Your task to perform on an android device: turn off priority inbox in the gmail app Image 0: 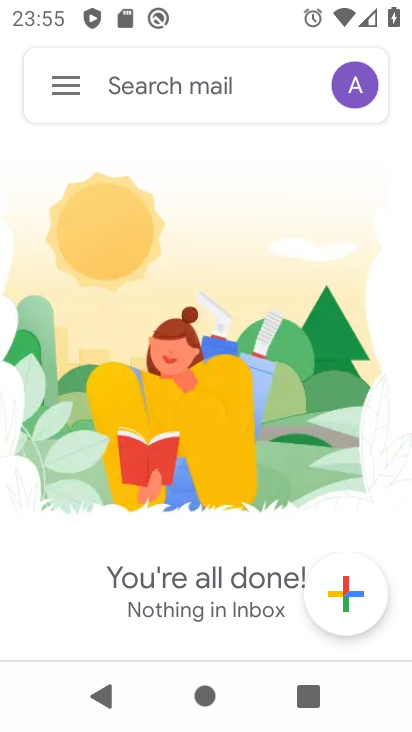
Step 0: press home button
Your task to perform on an android device: turn off priority inbox in the gmail app Image 1: 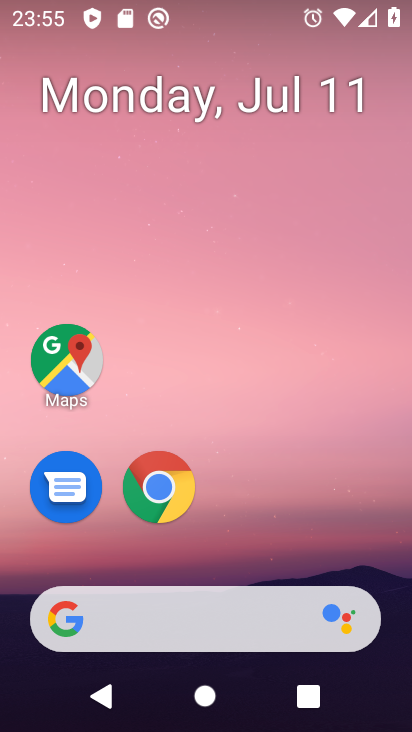
Step 1: drag from (363, 495) to (327, 244)
Your task to perform on an android device: turn off priority inbox in the gmail app Image 2: 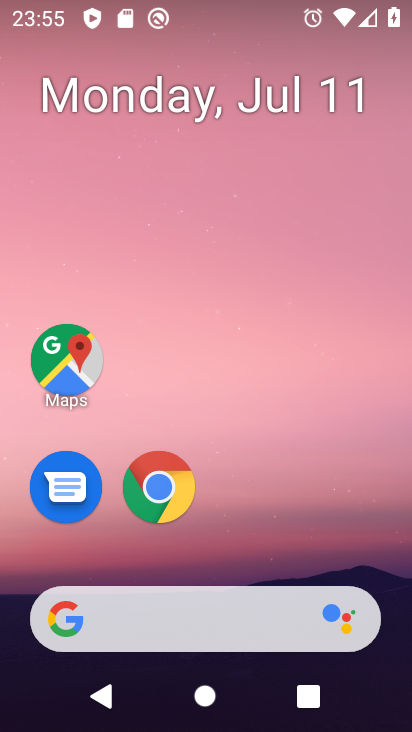
Step 2: drag from (339, 460) to (347, 40)
Your task to perform on an android device: turn off priority inbox in the gmail app Image 3: 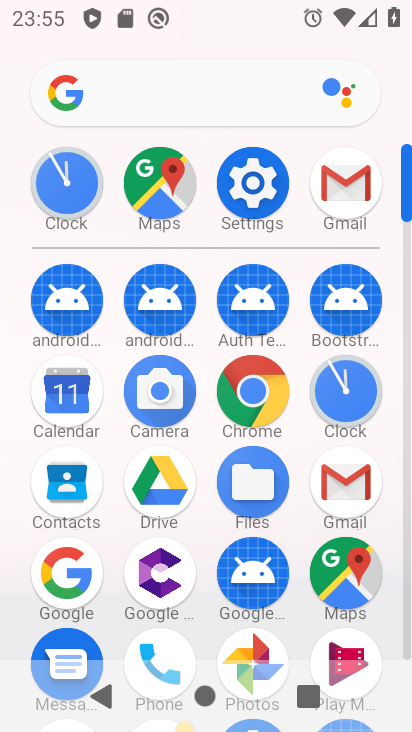
Step 3: click (349, 484)
Your task to perform on an android device: turn off priority inbox in the gmail app Image 4: 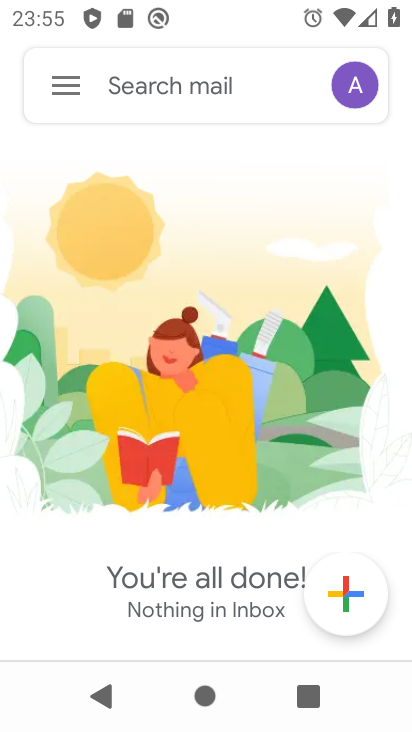
Step 4: click (68, 85)
Your task to perform on an android device: turn off priority inbox in the gmail app Image 5: 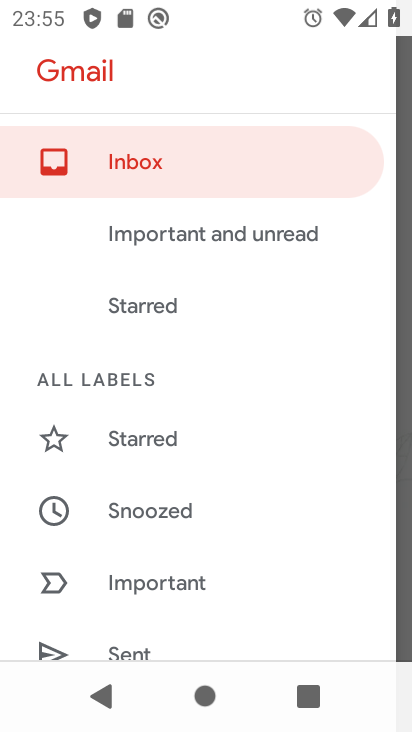
Step 5: drag from (299, 505) to (302, 388)
Your task to perform on an android device: turn off priority inbox in the gmail app Image 6: 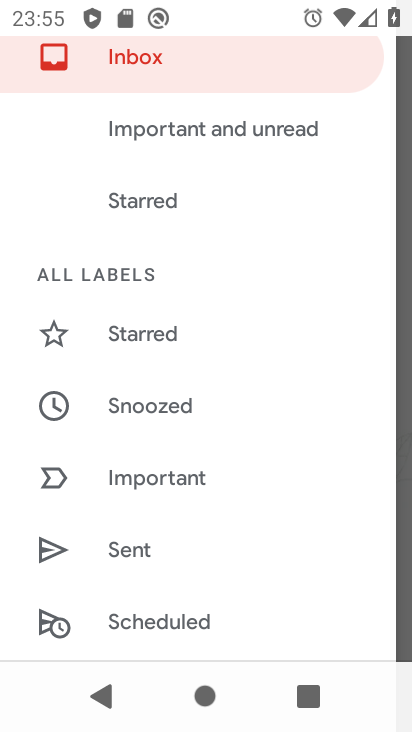
Step 6: drag from (317, 538) to (313, 406)
Your task to perform on an android device: turn off priority inbox in the gmail app Image 7: 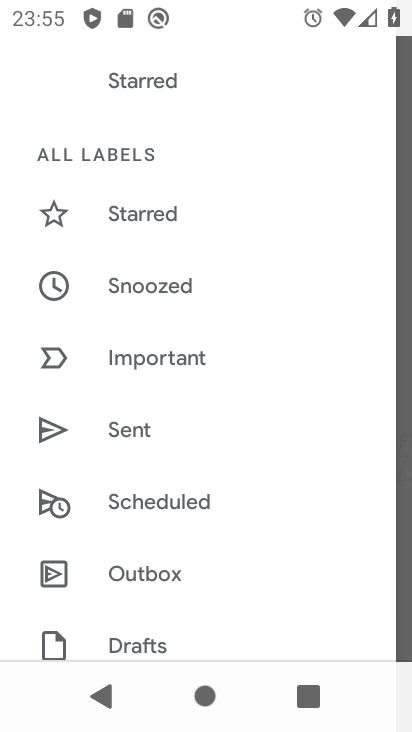
Step 7: drag from (309, 534) to (306, 386)
Your task to perform on an android device: turn off priority inbox in the gmail app Image 8: 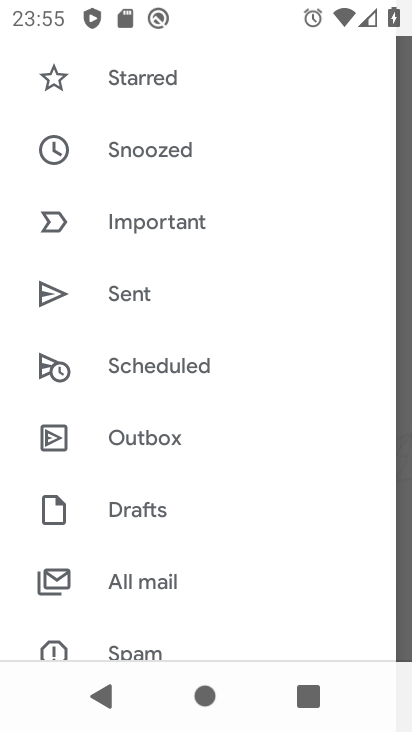
Step 8: drag from (290, 535) to (288, 418)
Your task to perform on an android device: turn off priority inbox in the gmail app Image 9: 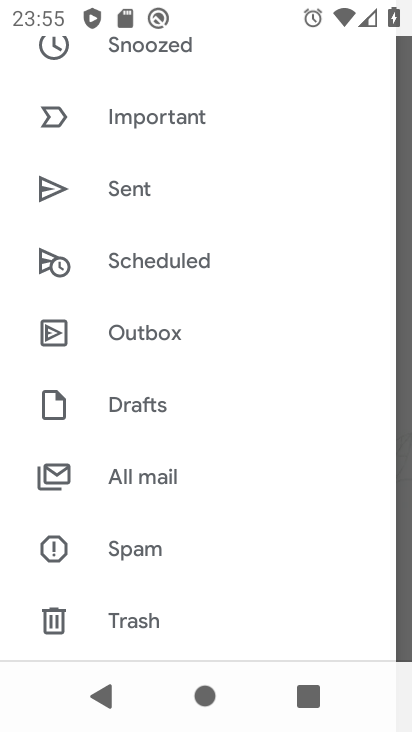
Step 9: drag from (291, 549) to (295, 350)
Your task to perform on an android device: turn off priority inbox in the gmail app Image 10: 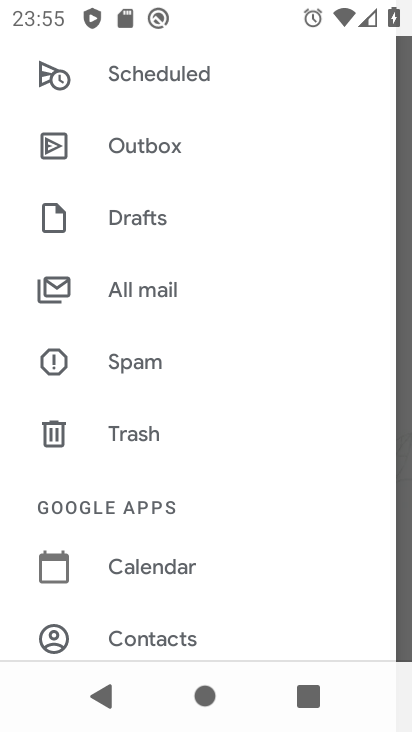
Step 10: drag from (312, 514) to (312, 401)
Your task to perform on an android device: turn off priority inbox in the gmail app Image 11: 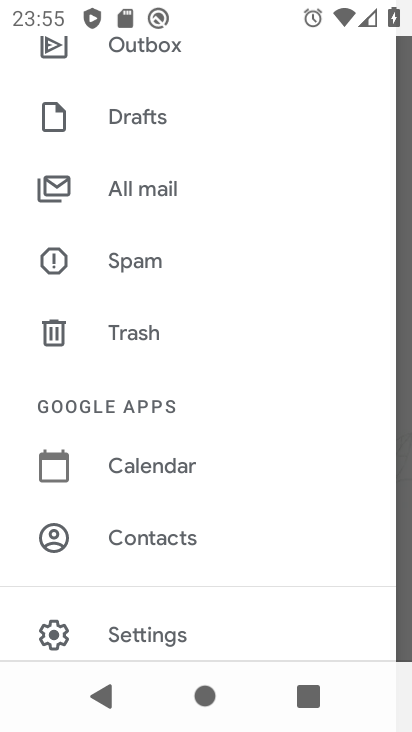
Step 11: drag from (317, 550) to (315, 409)
Your task to perform on an android device: turn off priority inbox in the gmail app Image 12: 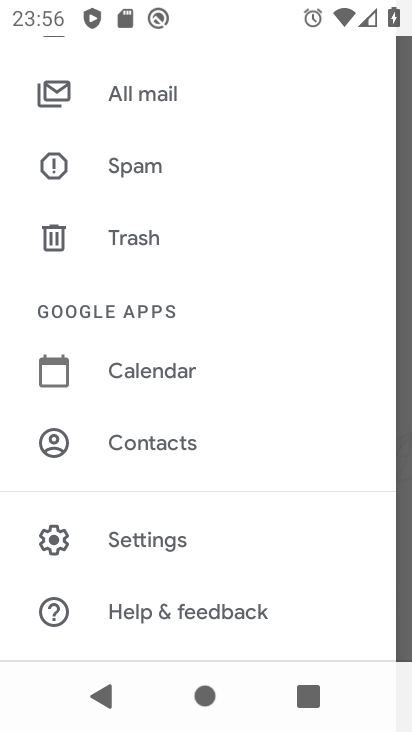
Step 12: click (240, 563)
Your task to perform on an android device: turn off priority inbox in the gmail app Image 13: 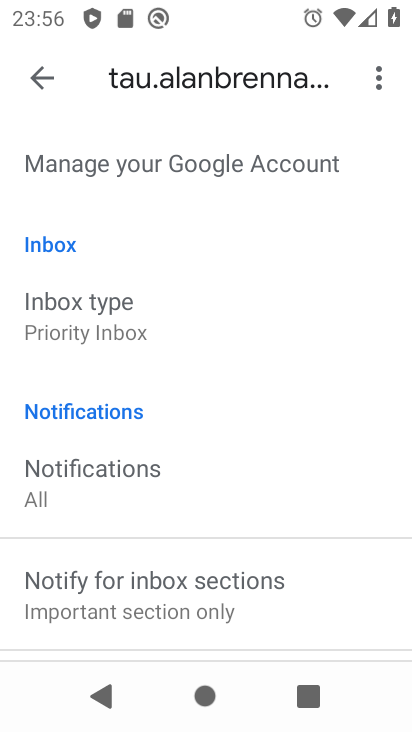
Step 13: drag from (337, 519) to (337, 433)
Your task to perform on an android device: turn off priority inbox in the gmail app Image 14: 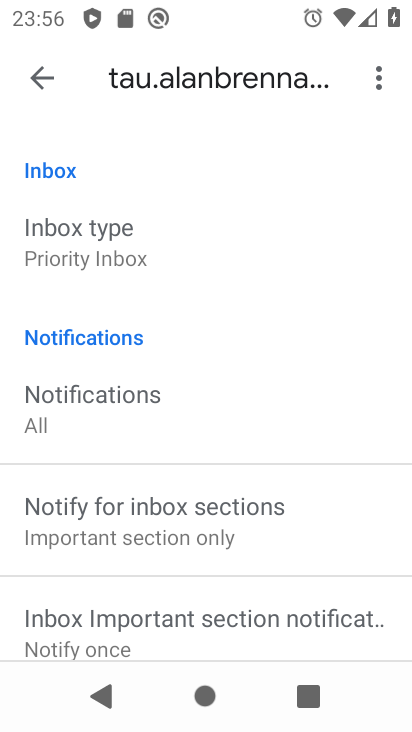
Step 14: drag from (337, 529) to (336, 389)
Your task to perform on an android device: turn off priority inbox in the gmail app Image 15: 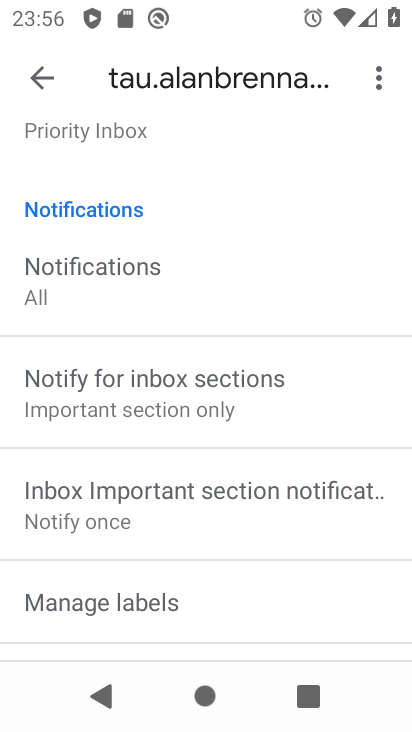
Step 15: drag from (347, 533) to (342, 410)
Your task to perform on an android device: turn off priority inbox in the gmail app Image 16: 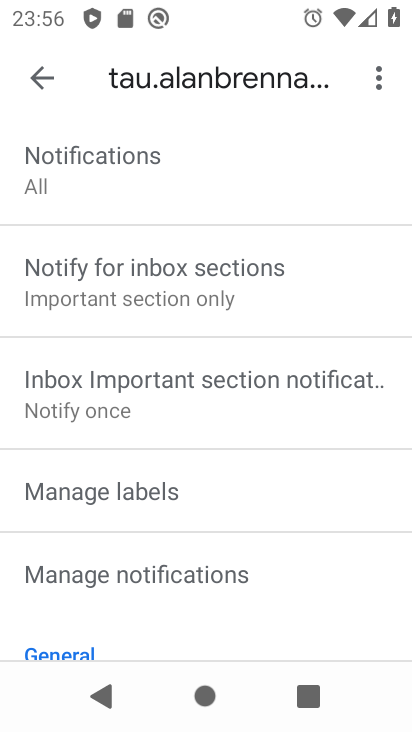
Step 16: drag from (338, 546) to (339, 448)
Your task to perform on an android device: turn off priority inbox in the gmail app Image 17: 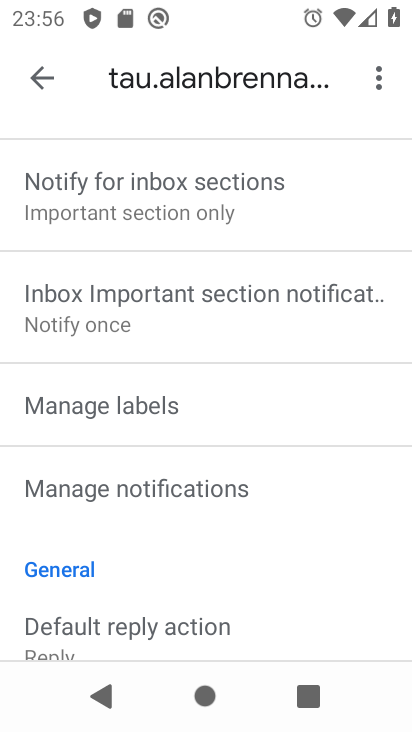
Step 17: drag from (356, 641) to (337, 397)
Your task to perform on an android device: turn off priority inbox in the gmail app Image 18: 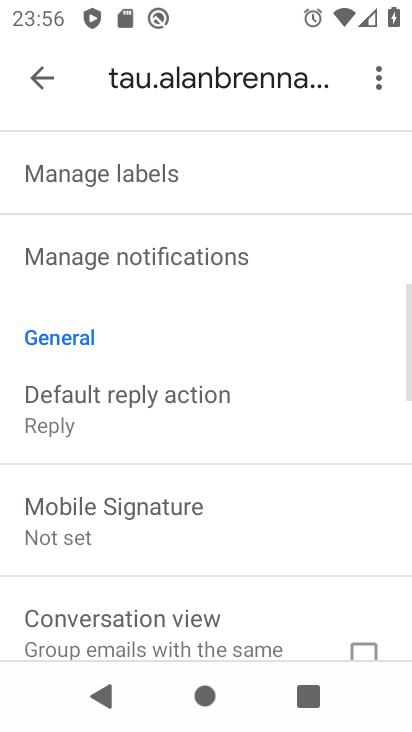
Step 18: drag from (336, 324) to (326, 574)
Your task to perform on an android device: turn off priority inbox in the gmail app Image 19: 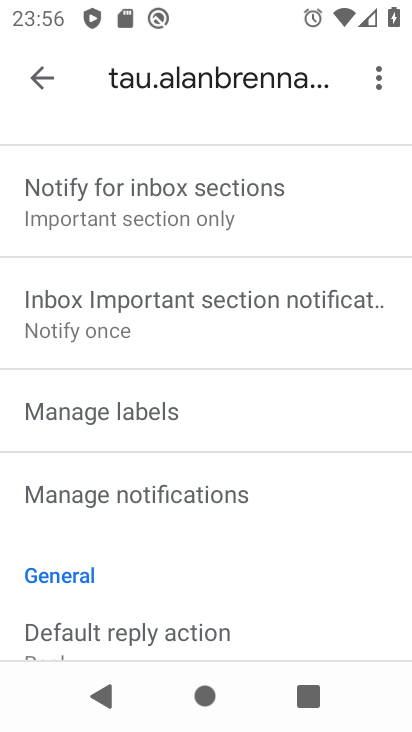
Step 19: drag from (311, 367) to (310, 571)
Your task to perform on an android device: turn off priority inbox in the gmail app Image 20: 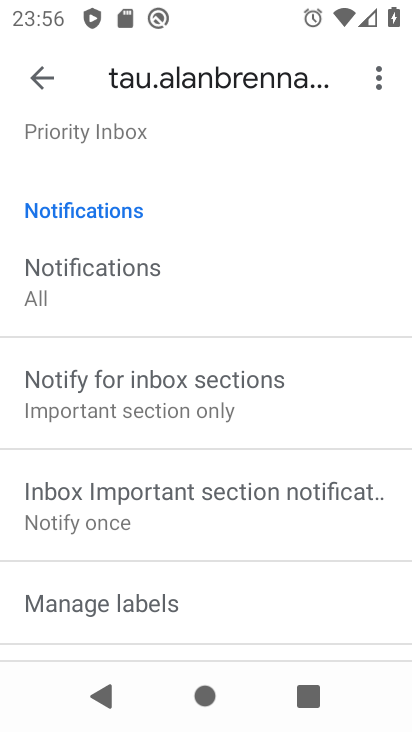
Step 20: drag from (300, 309) to (324, 486)
Your task to perform on an android device: turn off priority inbox in the gmail app Image 21: 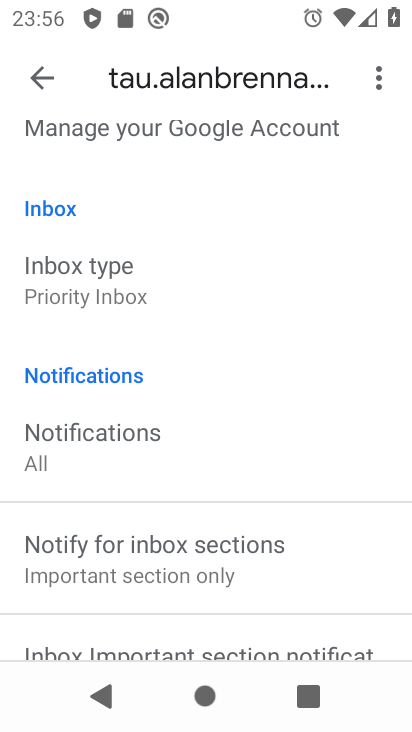
Step 21: drag from (308, 303) to (322, 486)
Your task to perform on an android device: turn off priority inbox in the gmail app Image 22: 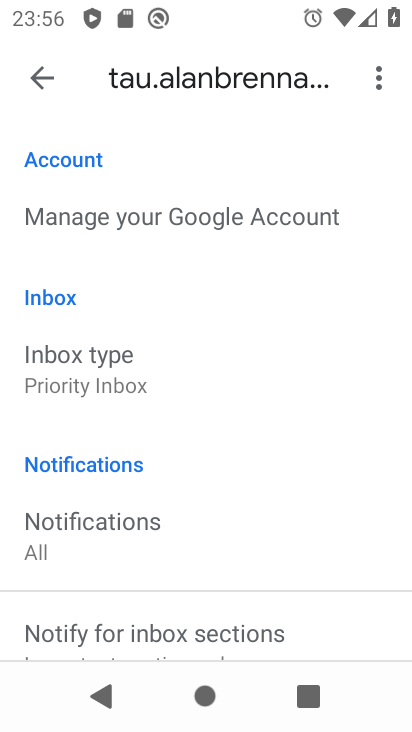
Step 22: click (164, 385)
Your task to perform on an android device: turn off priority inbox in the gmail app Image 23: 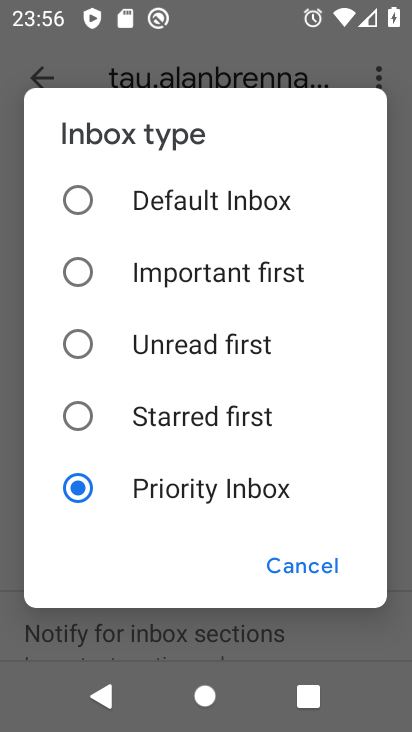
Step 23: click (168, 213)
Your task to perform on an android device: turn off priority inbox in the gmail app Image 24: 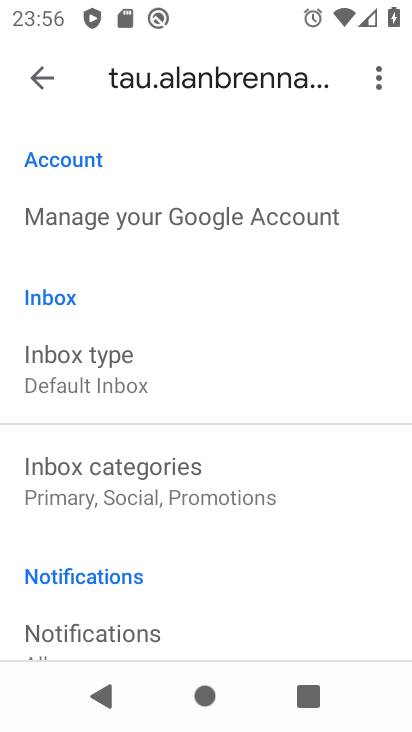
Step 24: task complete